Your task to perform on an android device: uninstall "Google Pay: Save, Pay, Manage" Image 0: 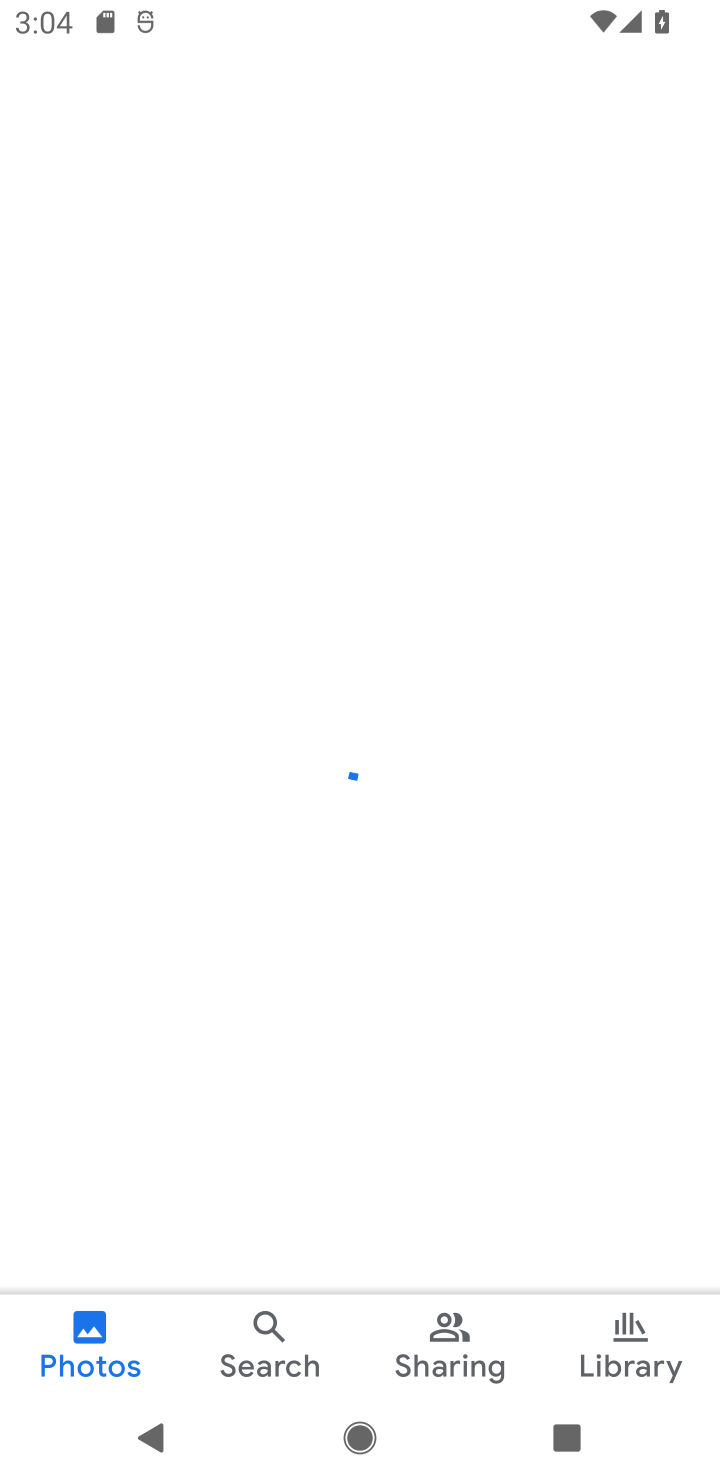
Step 0: press home button
Your task to perform on an android device: uninstall "Google Pay: Save, Pay, Manage" Image 1: 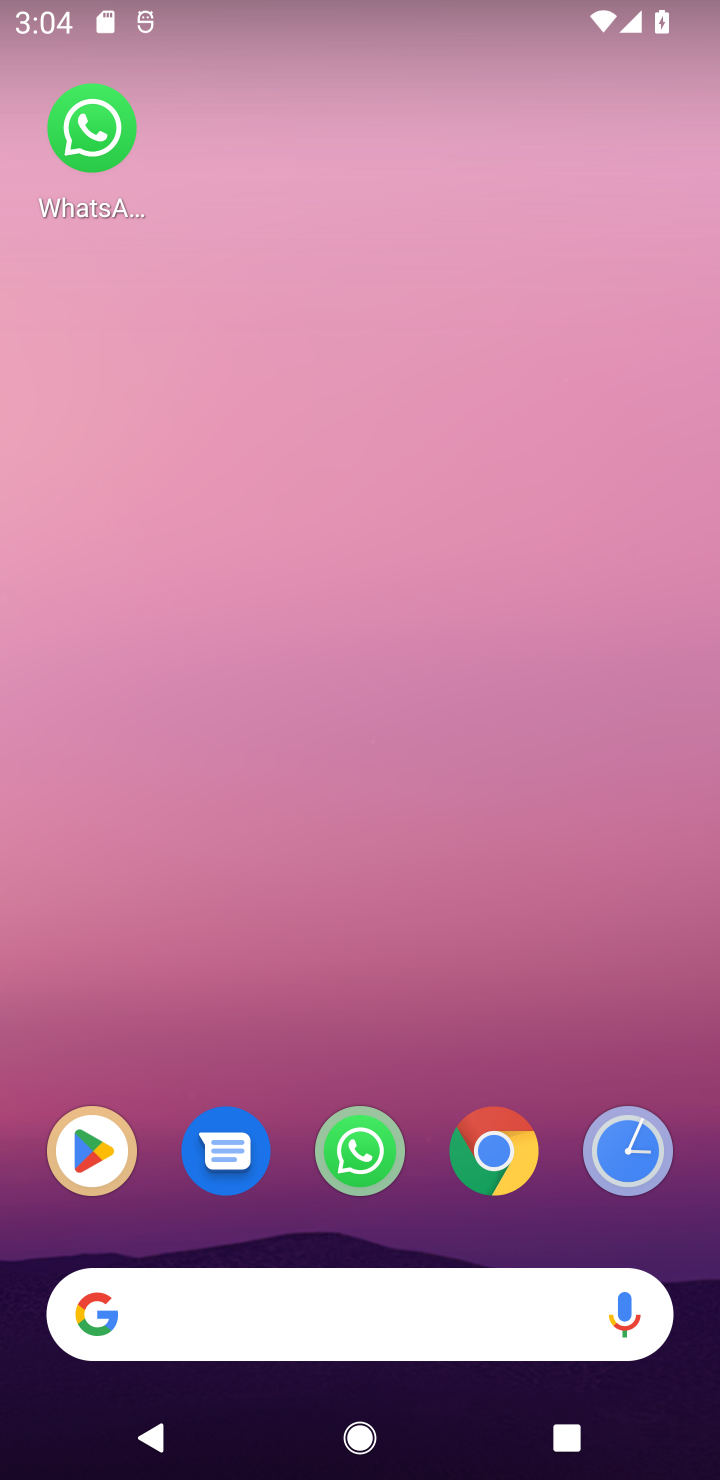
Step 1: click (92, 1158)
Your task to perform on an android device: uninstall "Google Pay: Save, Pay, Manage" Image 2: 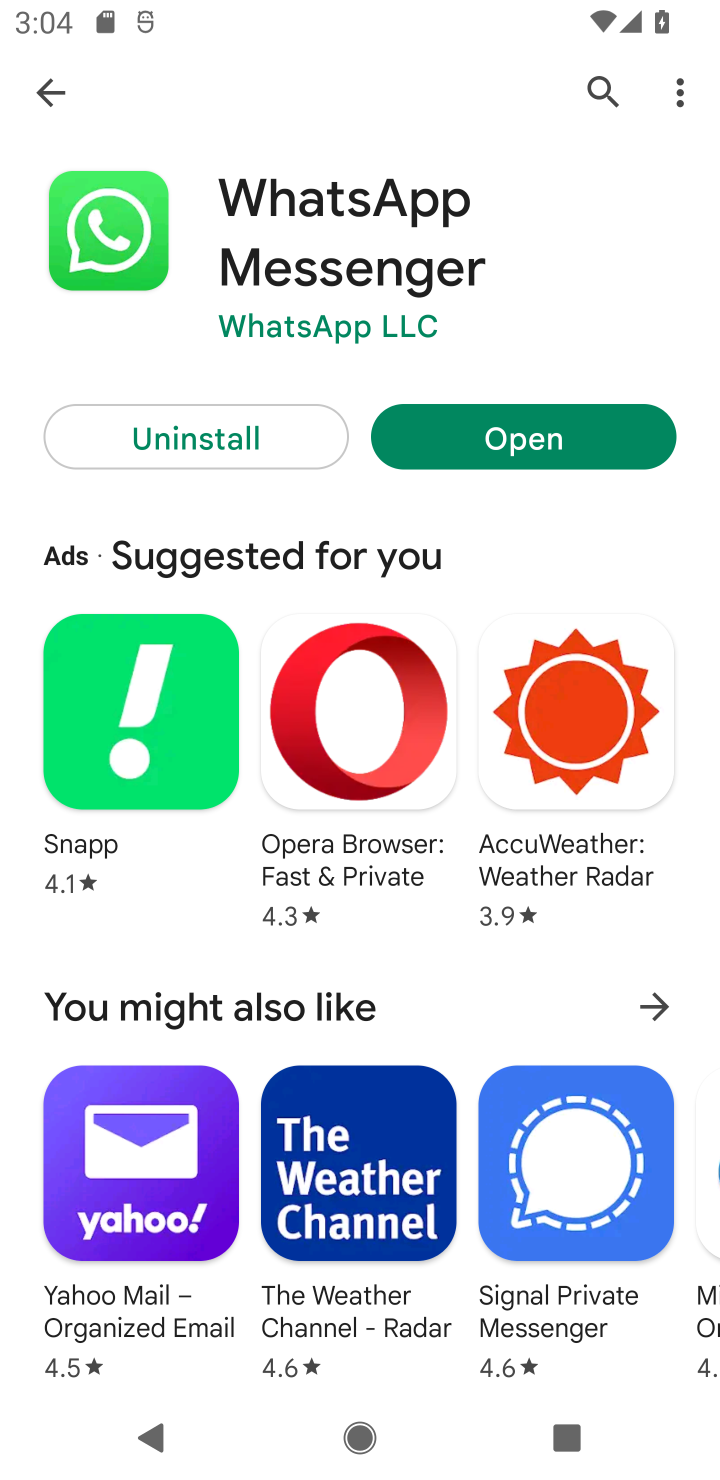
Step 2: click (576, 85)
Your task to perform on an android device: uninstall "Google Pay: Save, Pay, Manage" Image 3: 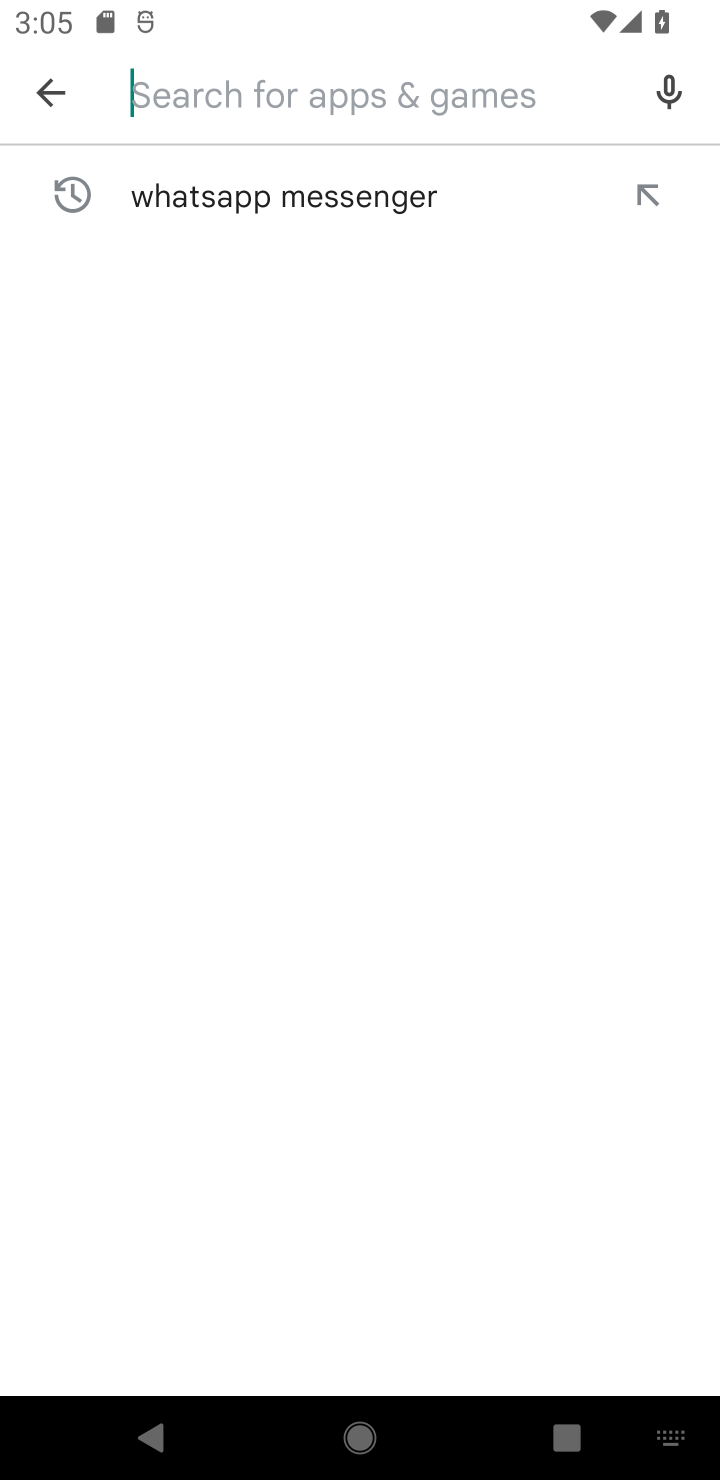
Step 3: type "google pay: save, pay, manage"
Your task to perform on an android device: uninstall "Google Pay: Save, Pay, Manage" Image 4: 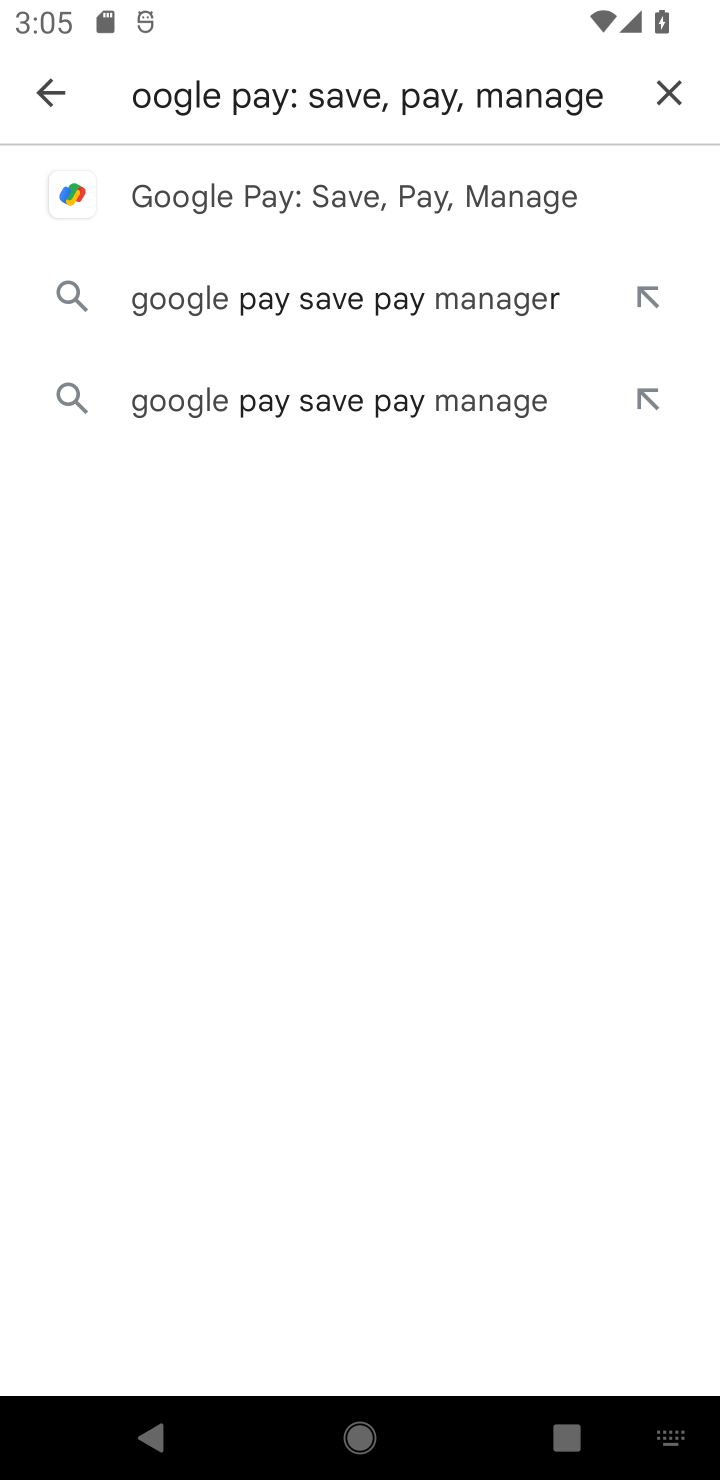
Step 4: click (476, 213)
Your task to perform on an android device: uninstall "Google Pay: Save, Pay, Manage" Image 5: 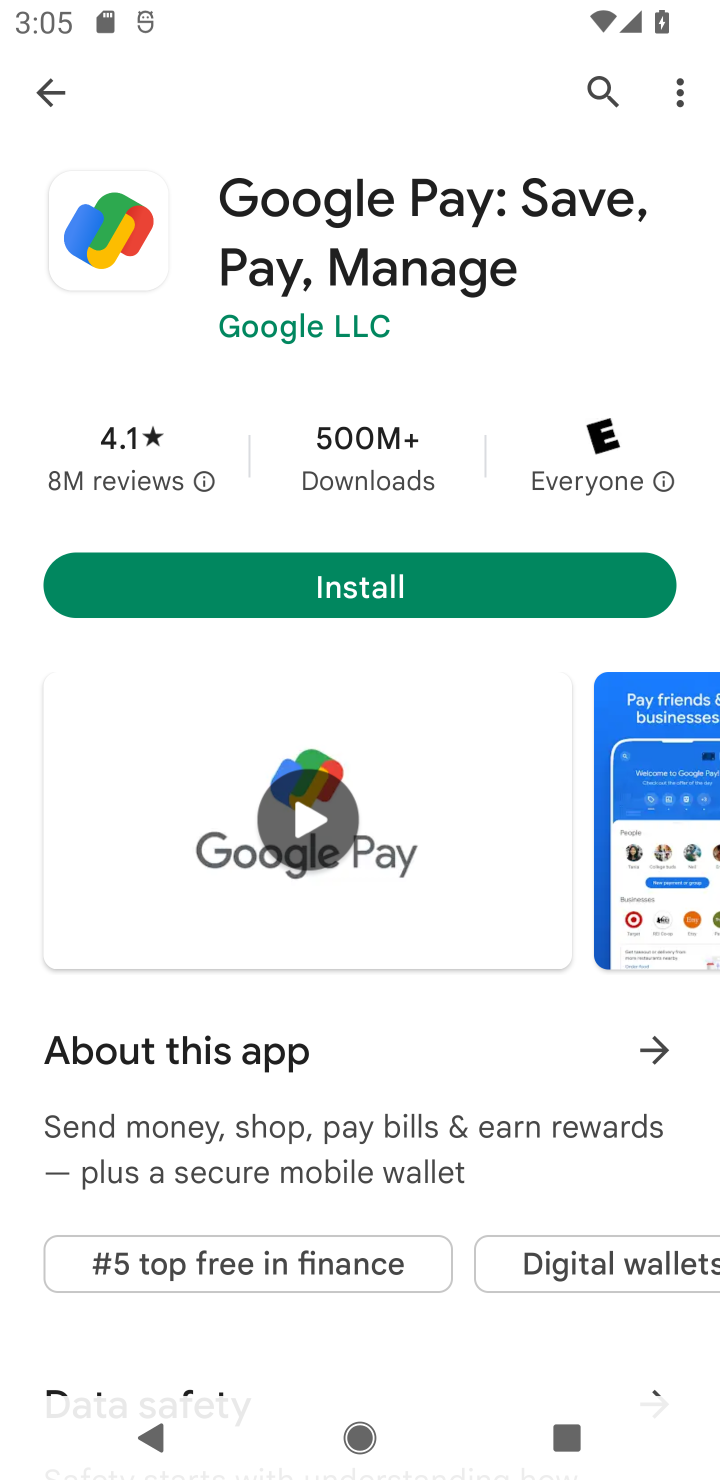
Step 5: task complete